Your task to perform on an android device: What's the weather going to be this weekend? Image 0: 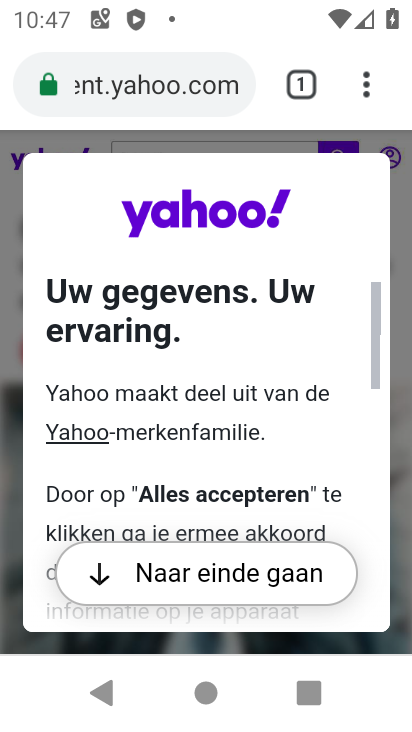
Step 0: press home button
Your task to perform on an android device: What's the weather going to be this weekend? Image 1: 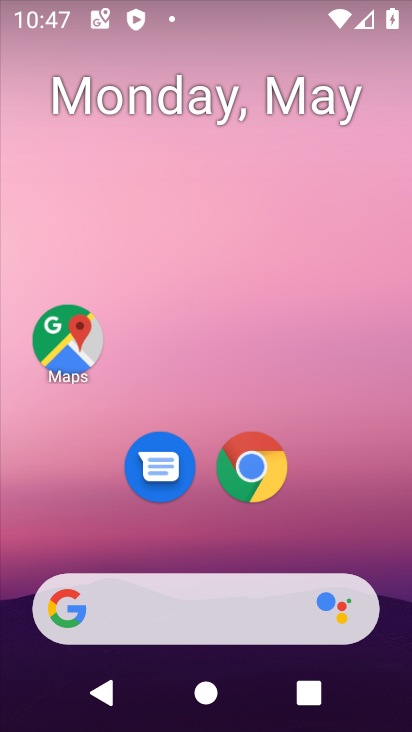
Step 1: click (219, 612)
Your task to perform on an android device: What's the weather going to be this weekend? Image 2: 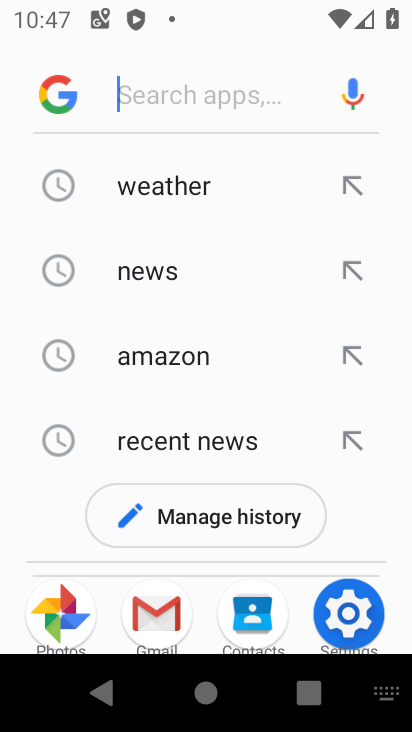
Step 2: click (189, 181)
Your task to perform on an android device: What's the weather going to be this weekend? Image 3: 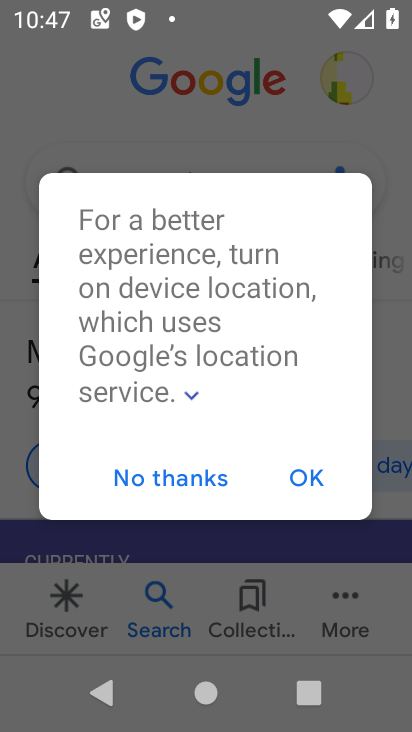
Step 3: click (301, 483)
Your task to perform on an android device: What's the weather going to be this weekend? Image 4: 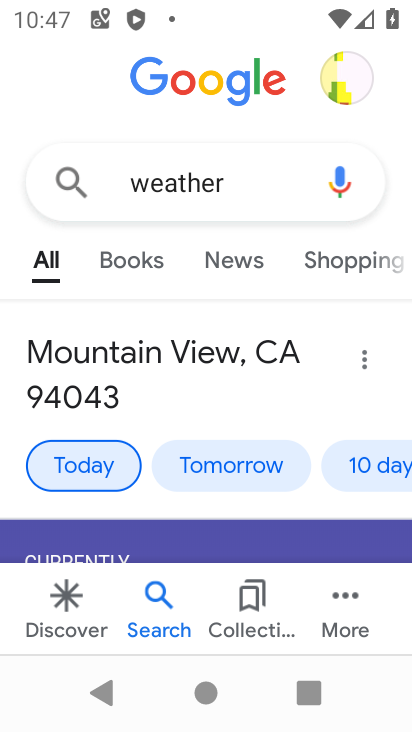
Step 4: drag from (312, 528) to (277, 296)
Your task to perform on an android device: What's the weather going to be this weekend? Image 5: 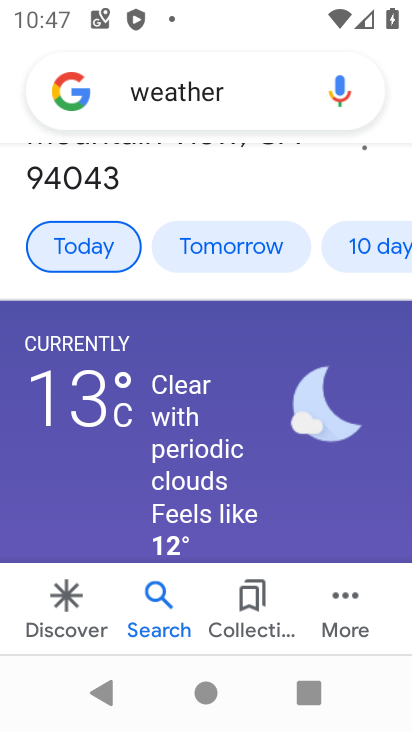
Step 5: click (373, 245)
Your task to perform on an android device: What's the weather going to be this weekend? Image 6: 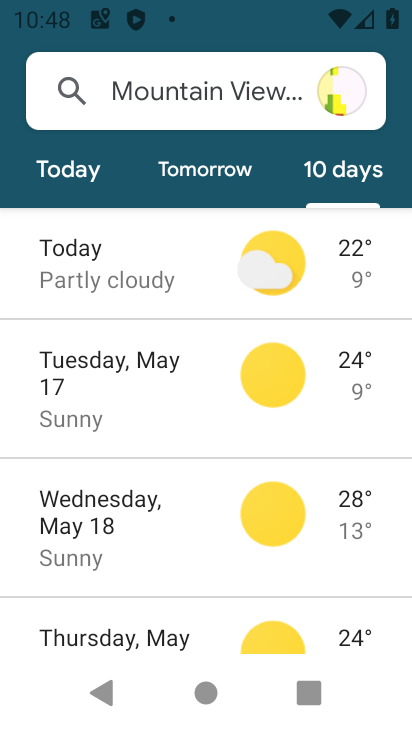
Step 6: task complete